Your task to perform on an android device: Open the stopwatch Image 0: 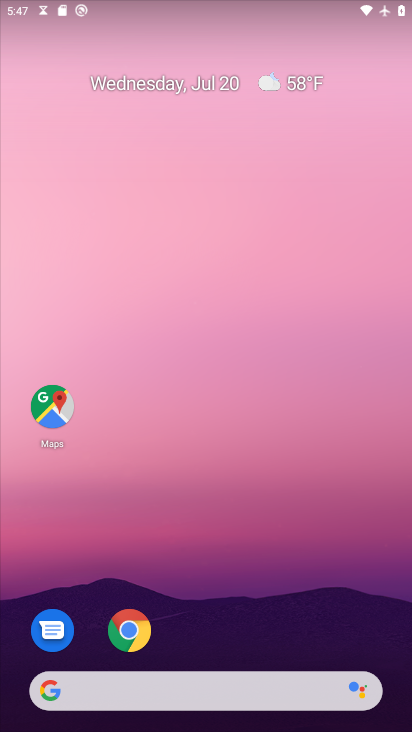
Step 0: press home button
Your task to perform on an android device: Open the stopwatch Image 1: 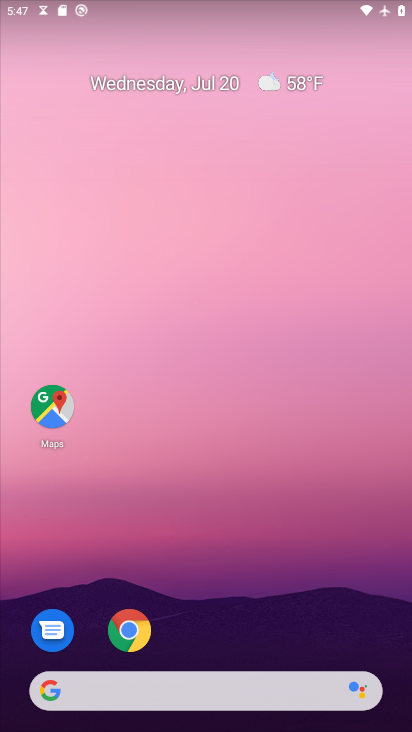
Step 1: drag from (246, 671) to (322, 210)
Your task to perform on an android device: Open the stopwatch Image 2: 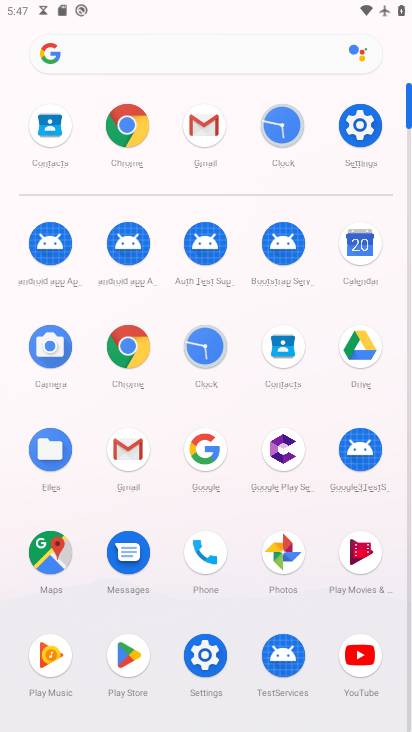
Step 2: click (286, 129)
Your task to perform on an android device: Open the stopwatch Image 3: 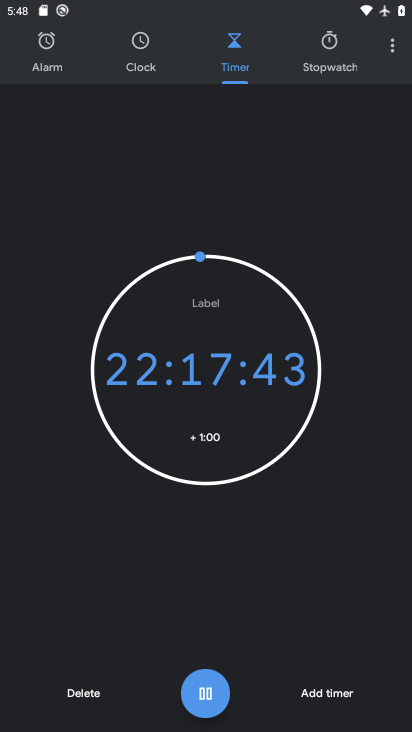
Step 3: click (287, 130)
Your task to perform on an android device: Open the stopwatch Image 4: 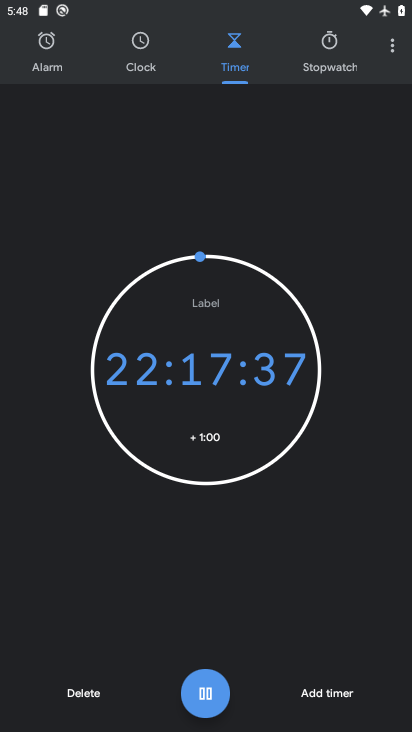
Step 4: click (333, 48)
Your task to perform on an android device: Open the stopwatch Image 5: 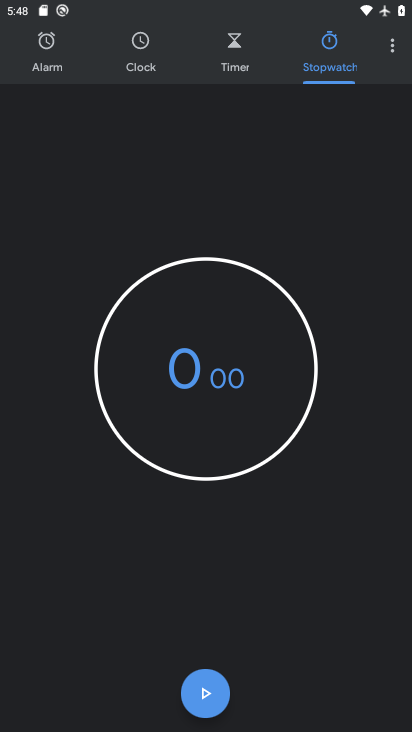
Step 5: task complete